Your task to perform on an android device: see creations saved in the google photos Image 0: 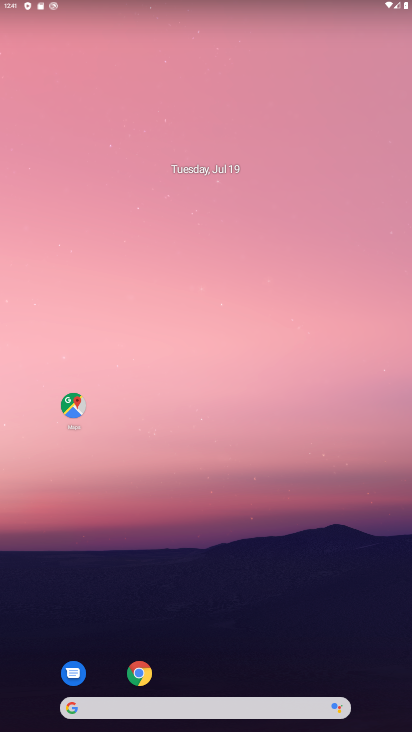
Step 0: drag from (187, 689) to (185, 111)
Your task to perform on an android device: see creations saved in the google photos Image 1: 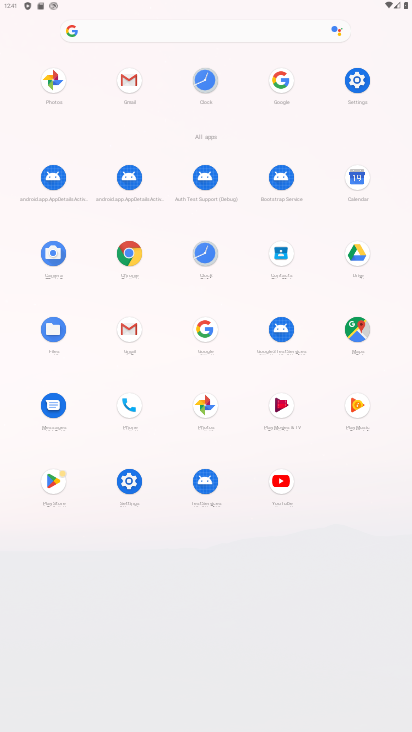
Step 1: click (207, 390)
Your task to perform on an android device: see creations saved in the google photos Image 2: 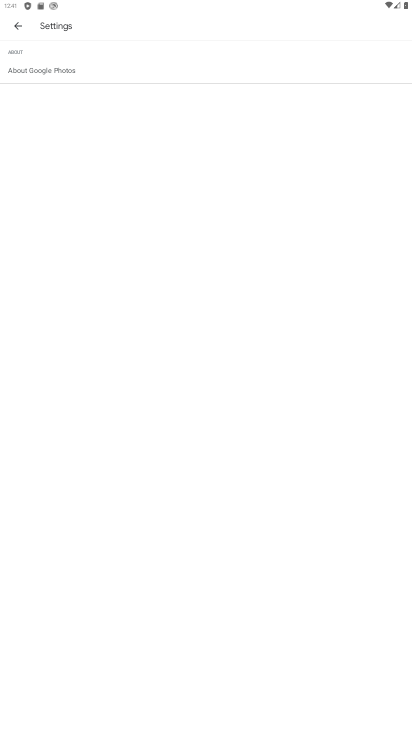
Step 2: click (24, 29)
Your task to perform on an android device: see creations saved in the google photos Image 3: 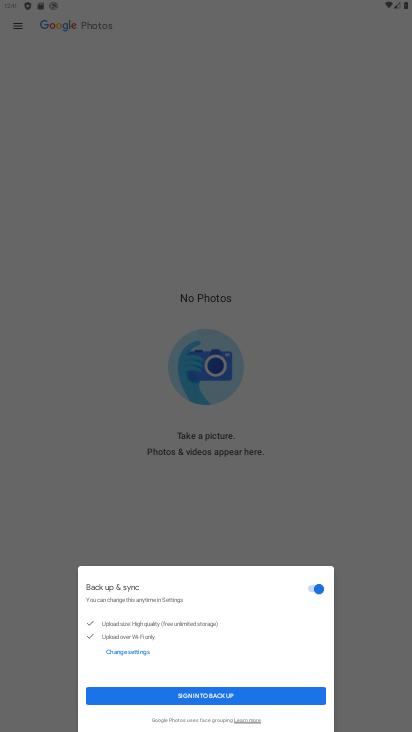
Step 3: click (161, 699)
Your task to perform on an android device: see creations saved in the google photos Image 4: 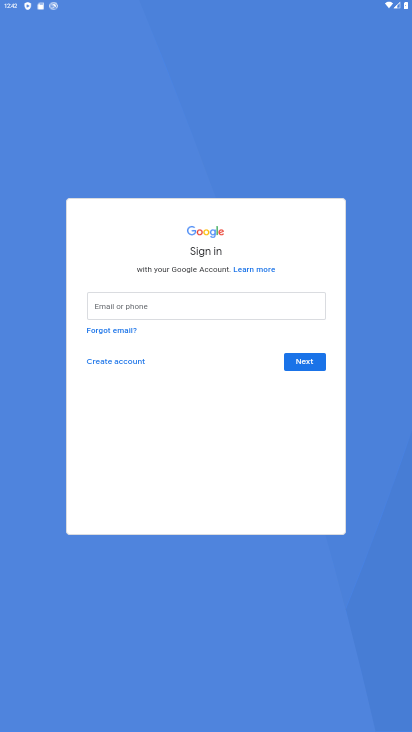
Step 4: task complete